Your task to perform on an android device: open a bookmark in the chrome app Image 0: 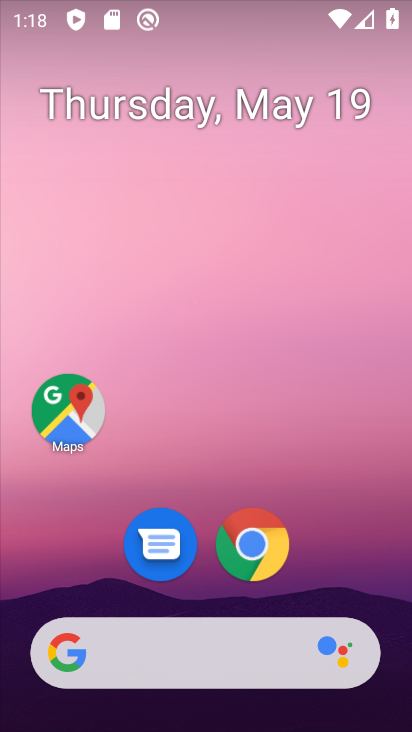
Step 0: press home button
Your task to perform on an android device: open a bookmark in the chrome app Image 1: 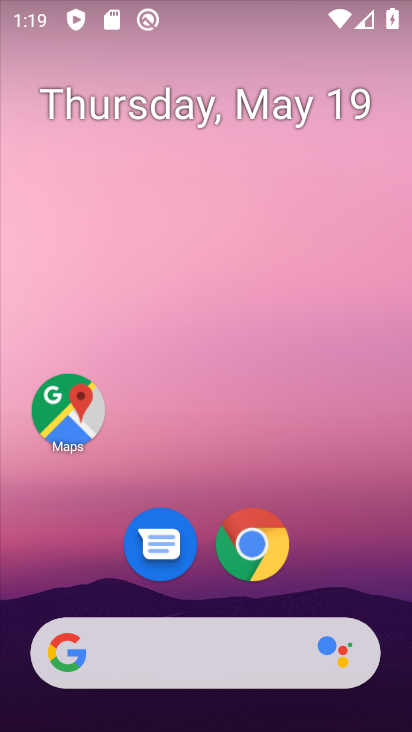
Step 1: drag from (168, 698) to (169, 160)
Your task to perform on an android device: open a bookmark in the chrome app Image 2: 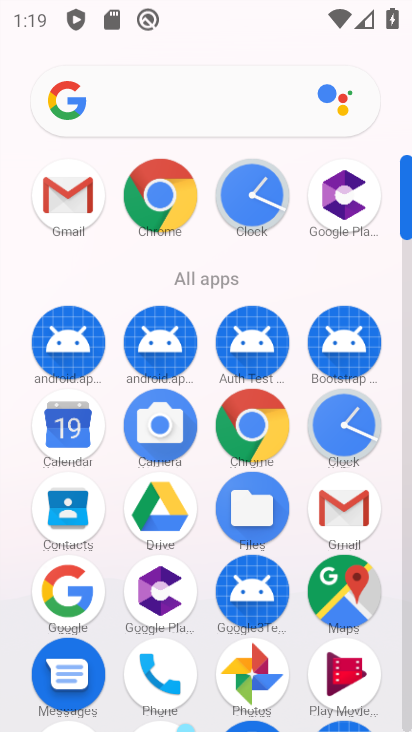
Step 2: click (173, 201)
Your task to perform on an android device: open a bookmark in the chrome app Image 3: 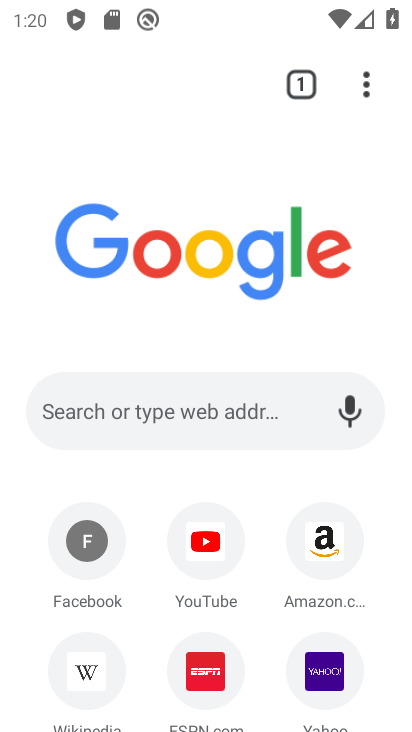
Step 3: click (355, 85)
Your task to perform on an android device: open a bookmark in the chrome app Image 4: 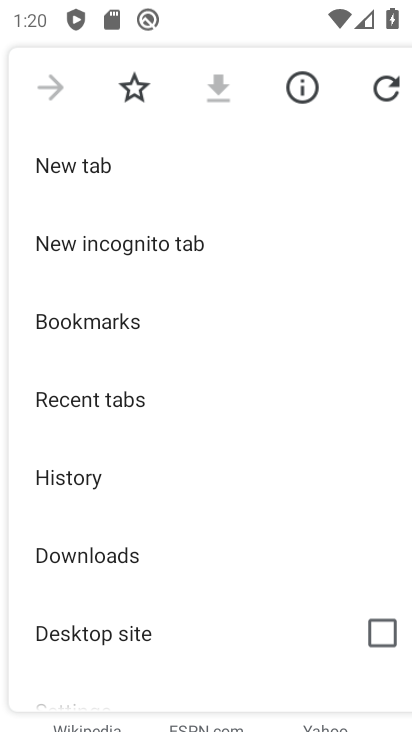
Step 4: click (94, 316)
Your task to perform on an android device: open a bookmark in the chrome app Image 5: 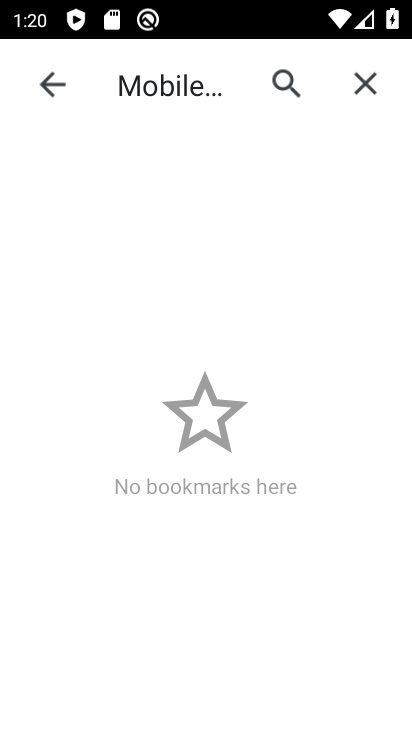
Step 5: task complete